Your task to perform on an android device: turn on location history Image 0: 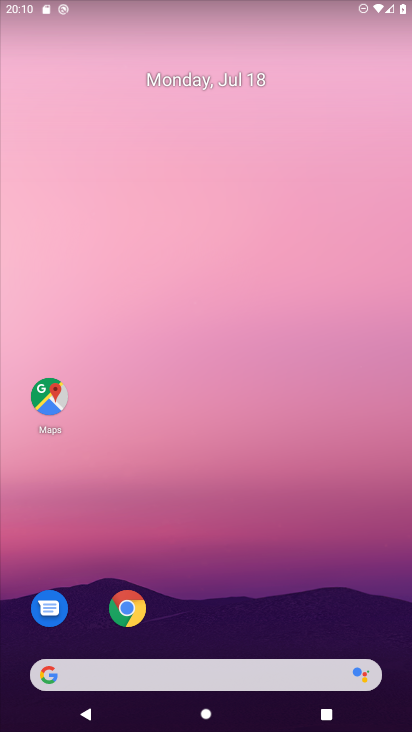
Step 0: drag from (199, 640) to (207, 151)
Your task to perform on an android device: turn on location history Image 1: 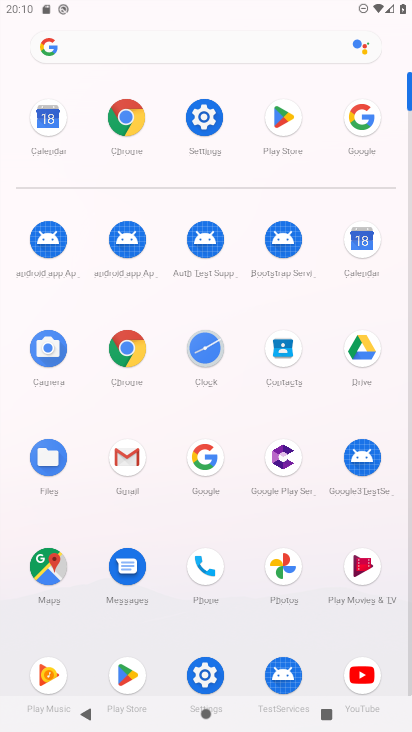
Step 1: click (203, 116)
Your task to perform on an android device: turn on location history Image 2: 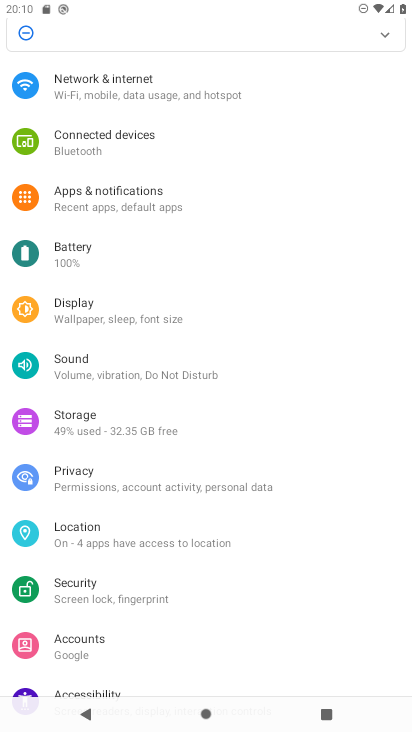
Step 2: click (103, 525)
Your task to perform on an android device: turn on location history Image 3: 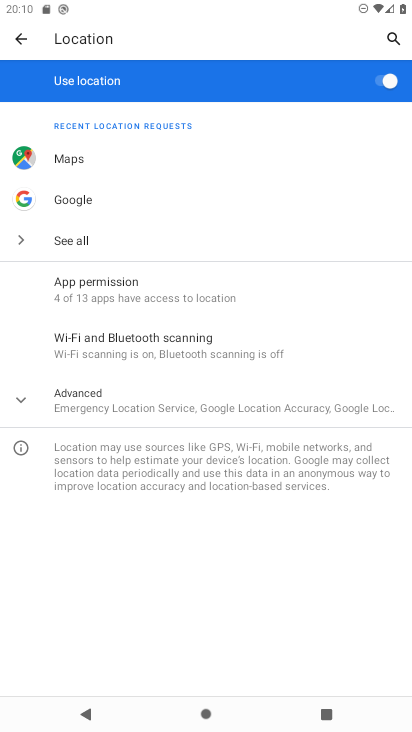
Step 3: click (62, 401)
Your task to perform on an android device: turn on location history Image 4: 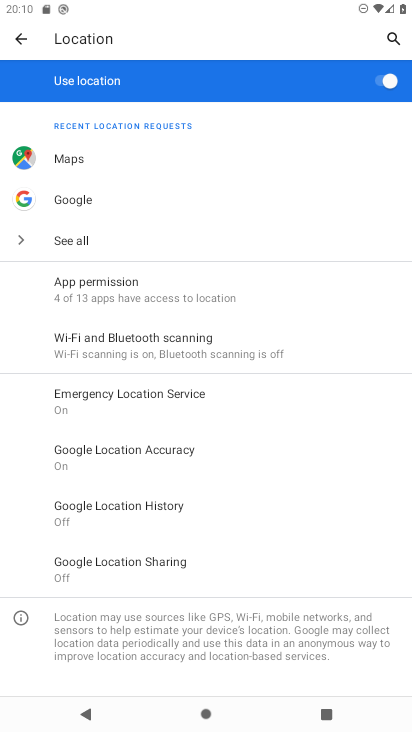
Step 4: click (149, 515)
Your task to perform on an android device: turn on location history Image 5: 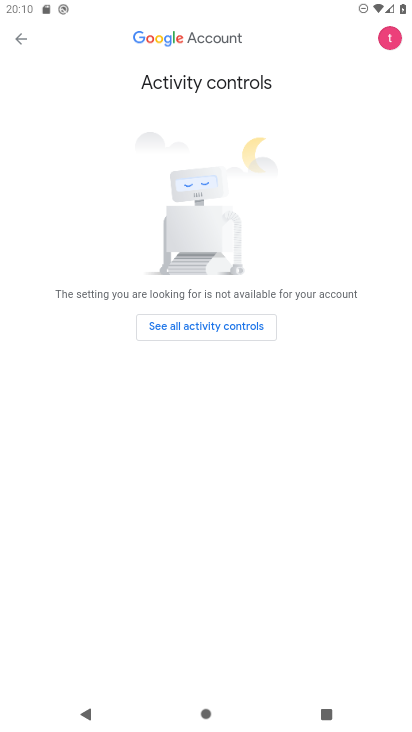
Step 5: task complete